Your task to perform on an android device: Find coffee shops on Maps Image 0: 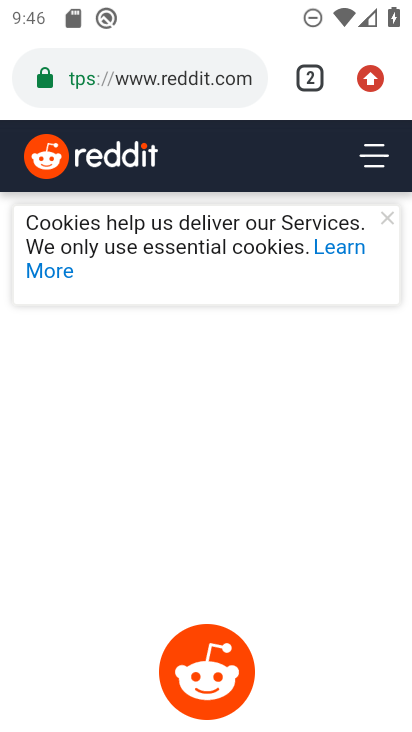
Step 0: press home button
Your task to perform on an android device: Find coffee shops on Maps Image 1: 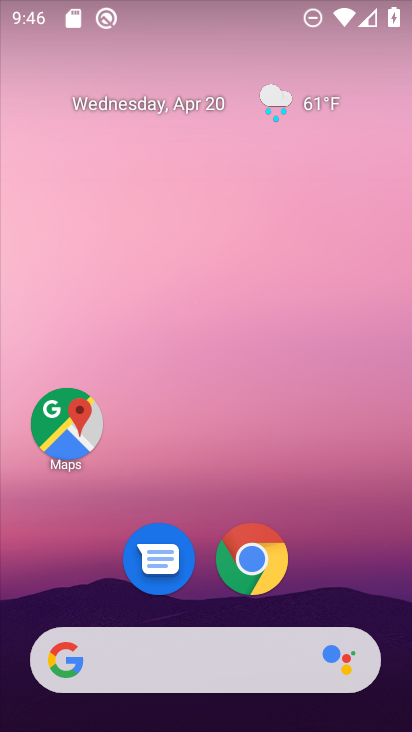
Step 1: click (57, 426)
Your task to perform on an android device: Find coffee shops on Maps Image 2: 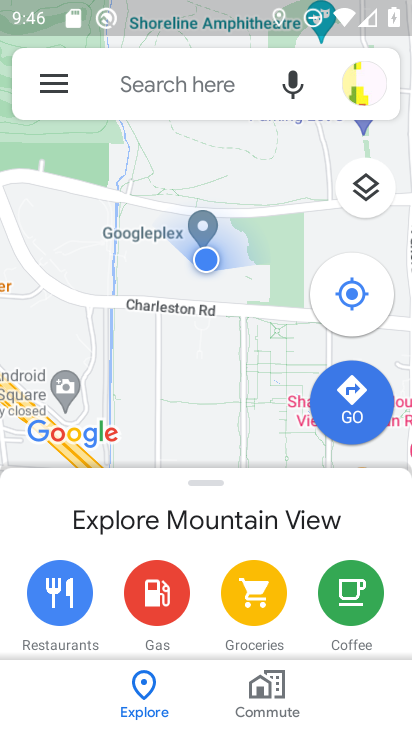
Step 2: click (117, 80)
Your task to perform on an android device: Find coffee shops on Maps Image 3: 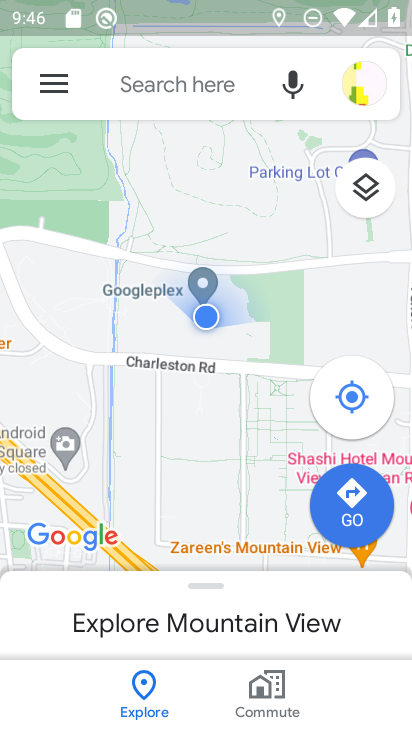
Step 3: click (132, 69)
Your task to perform on an android device: Find coffee shops on Maps Image 4: 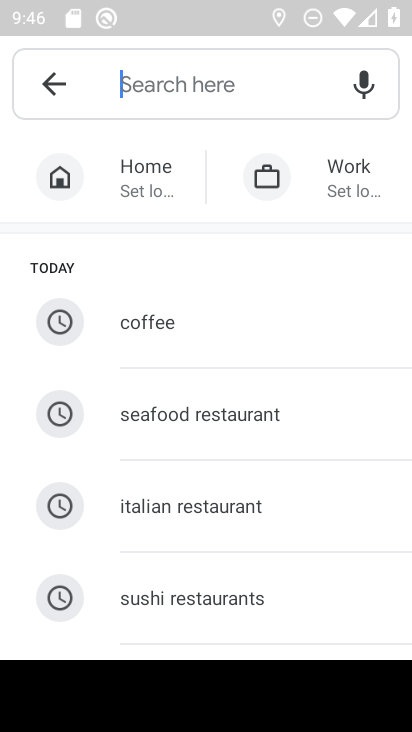
Step 4: type "coffee"
Your task to perform on an android device: Find coffee shops on Maps Image 5: 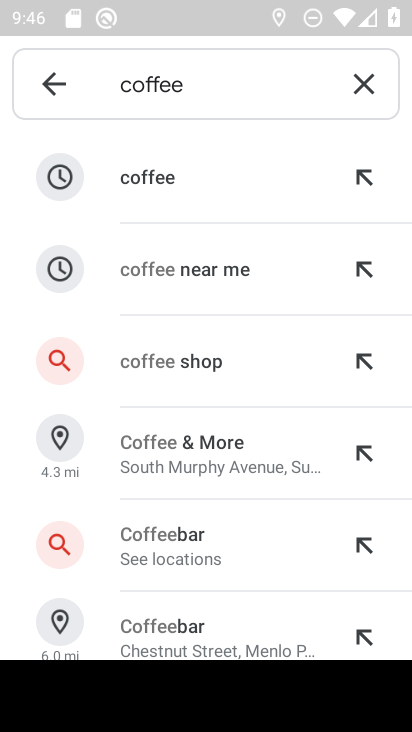
Step 5: click (161, 191)
Your task to perform on an android device: Find coffee shops on Maps Image 6: 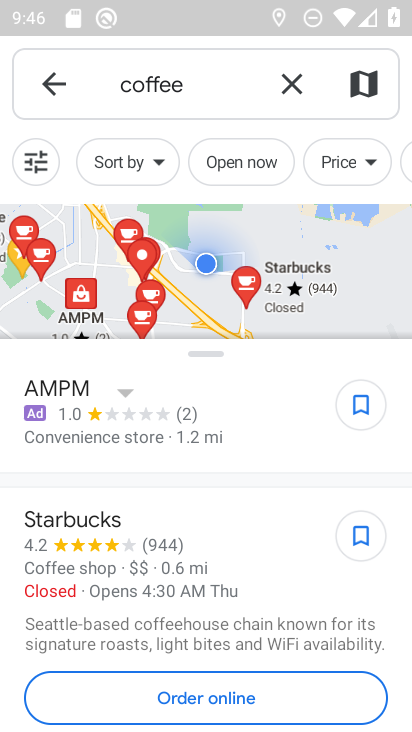
Step 6: click (161, 191)
Your task to perform on an android device: Find coffee shops on Maps Image 7: 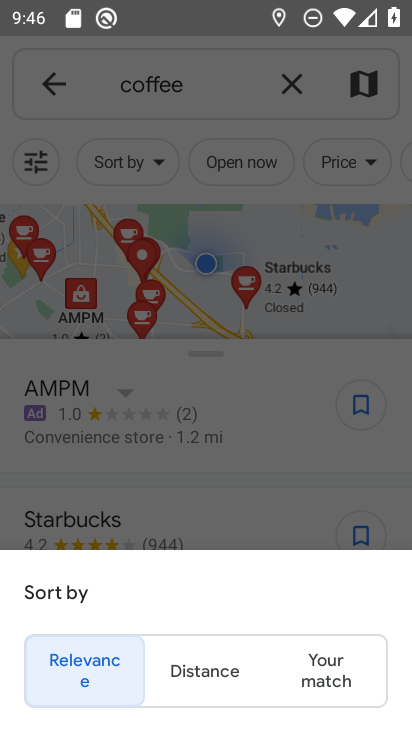
Step 7: click (221, 478)
Your task to perform on an android device: Find coffee shops on Maps Image 8: 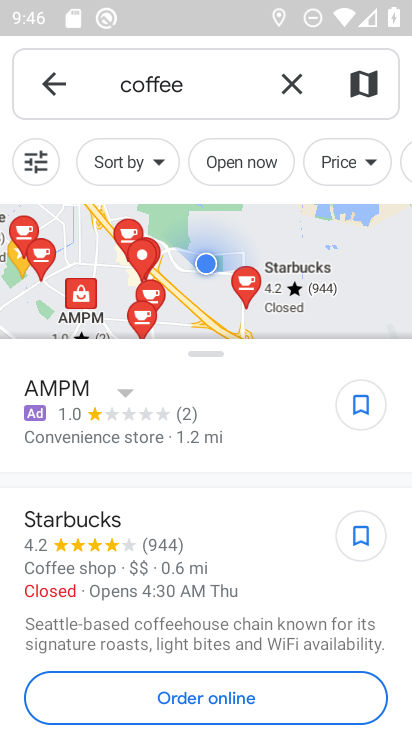
Step 8: task complete